Your task to perform on an android device: Open calendar and show me the second week of next month Image 0: 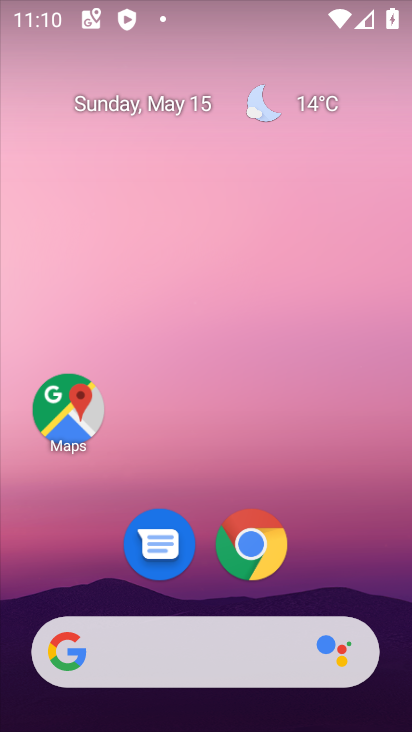
Step 0: drag from (63, 581) to (217, 130)
Your task to perform on an android device: Open calendar and show me the second week of next month Image 1: 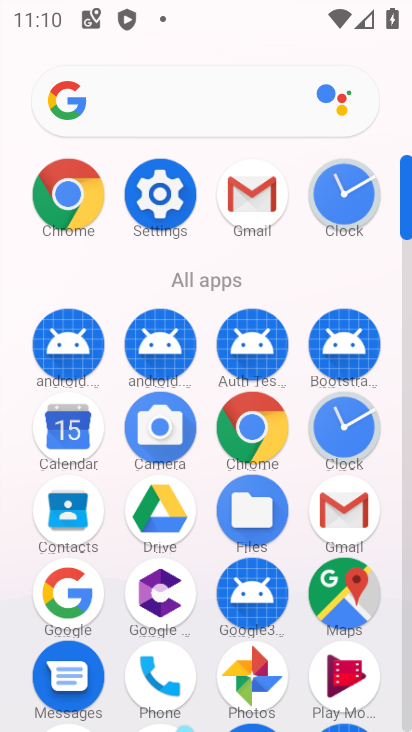
Step 1: click (67, 438)
Your task to perform on an android device: Open calendar and show me the second week of next month Image 2: 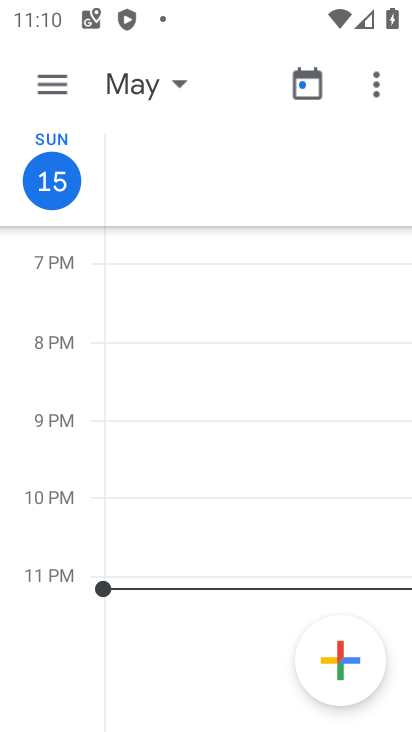
Step 2: click (129, 88)
Your task to perform on an android device: Open calendar and show me the second week of next month Image 3: 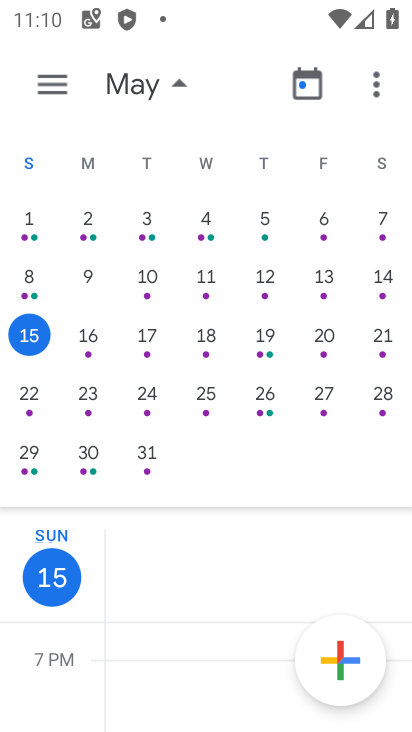
Step 3: drag from (371, 365) to (25, 370)
Your task to perform on an android device: Open calendar and show me the second week of next month Image 4: 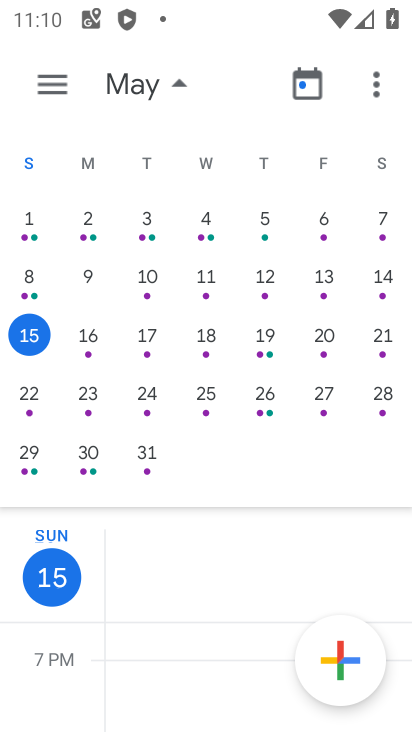
Step 4: drag from (382, 416) to (4, 383)
Your task to perform on an android device: Open calendar and show me the second week of next month Image 5: 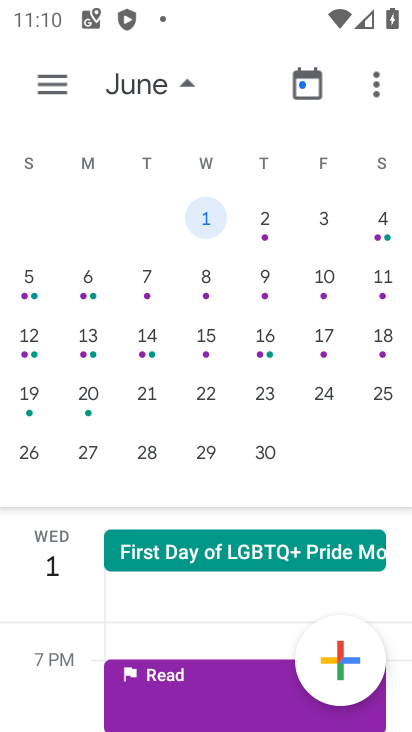
Step 5: click (35, 342)
Your task to perform on an android device: Open calendar and show me the second week of next month Image 6: 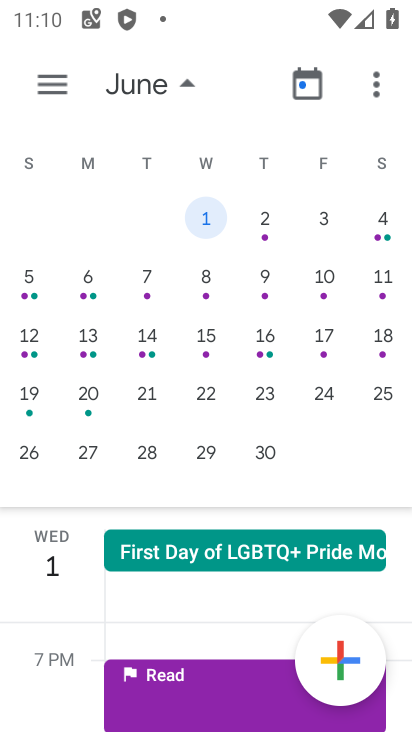
Step 6: click (35, 340)
Your task to perform on an android device: Open calendar and show me the second week of next month Image 7: 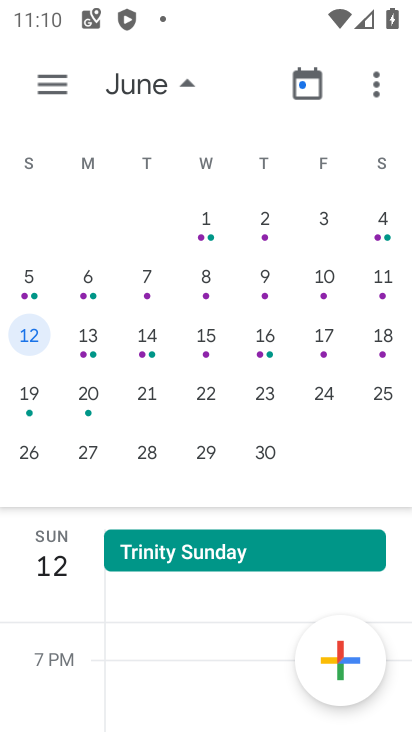
Step 7: click (56, 84)
Your task to perform on an android device: Open calendar and show me the second week of next month Image 8: 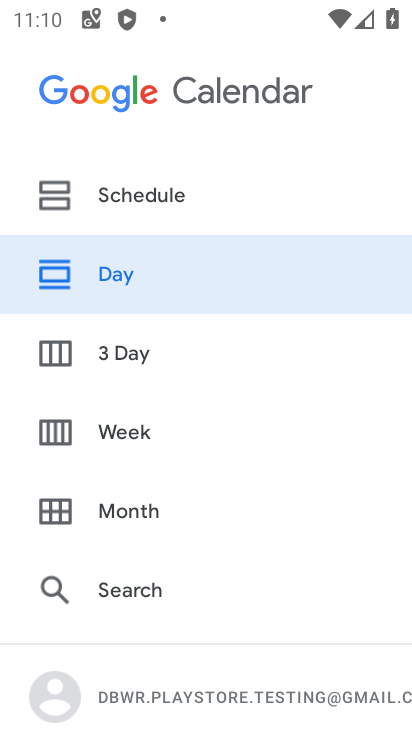
Step 8: click (152, 430)
Your task to perform on an android device: Open calendar and show me the second week of next month Image 9: 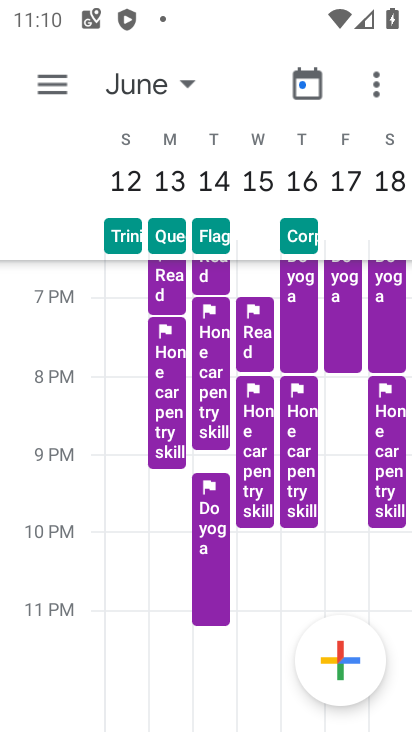
Step 9: task complete